Your task to perform on an android device: empty trash in google photos Image 0: 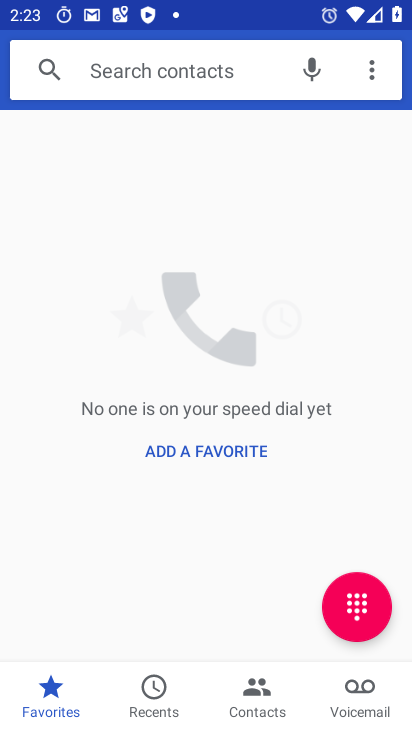
Step 0: press home button
Your task to perform on an android device: empty trash in google photos Image 1: 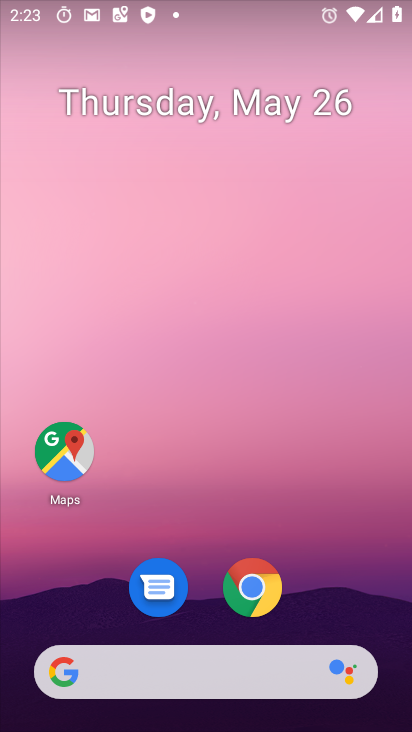
Step 1: drag from (265, 698) to (376, 134)
Your task to perform on an android device: empty trash in google photos Image 2: 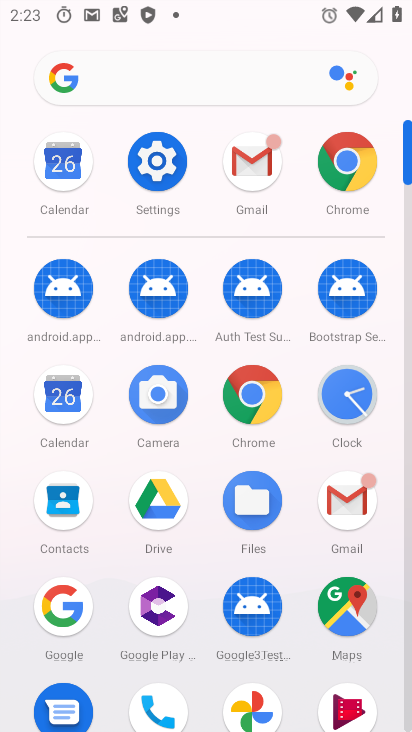
Step 2: drag from (197, 556) to (186, 487)
Your task to perform on an android device: empty trash in google photos Image 3: 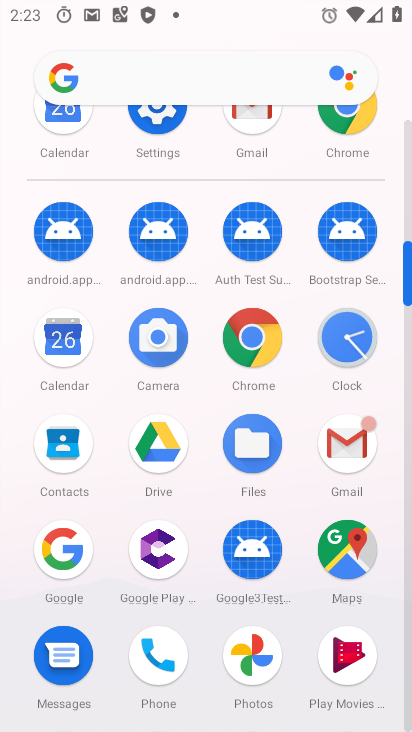
Step 3: click (270, 643)
Your task to perform on an android device: empty trash in google photos Image 4: 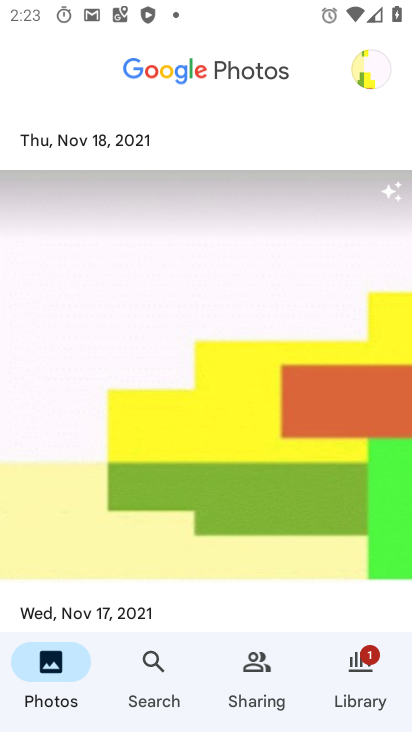
Step 4: click (151, 657)
Your task to perform on an android device: empty trash in google photos Image 5: 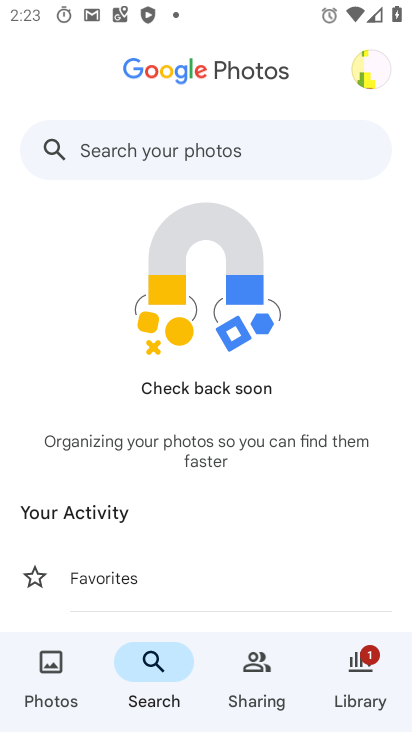
Step 5: click (151, 145)
Your task to perform on an android device: empty trash in google photos Image 6: 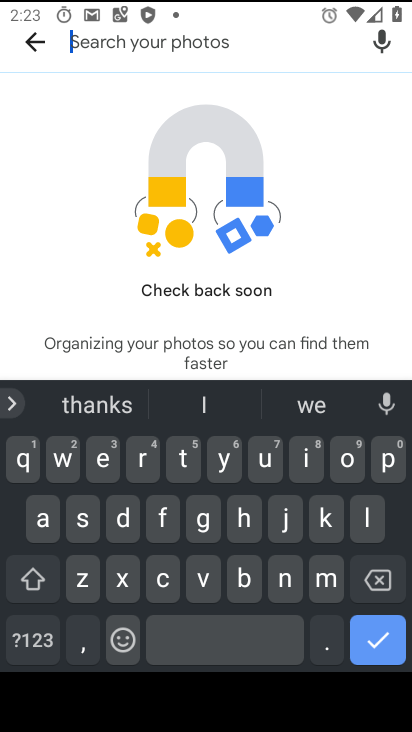
Step 6: click (176, 471)
Your task to perform on an android device: empty trash in google photos Image 7: 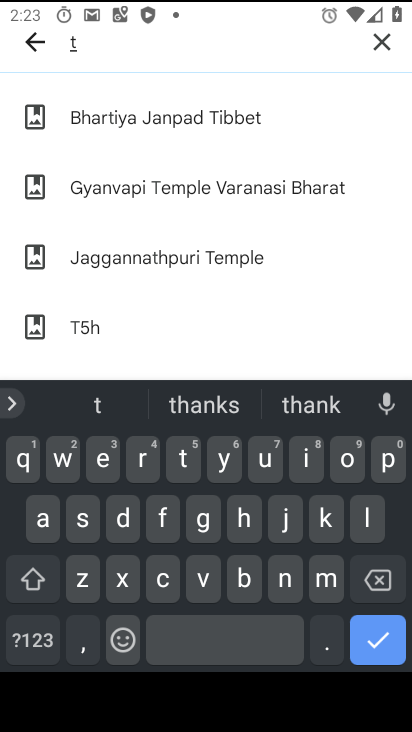
Step 7: click (139, 458)
Your task to perform on an android device: empty trash in google photos Image 8: 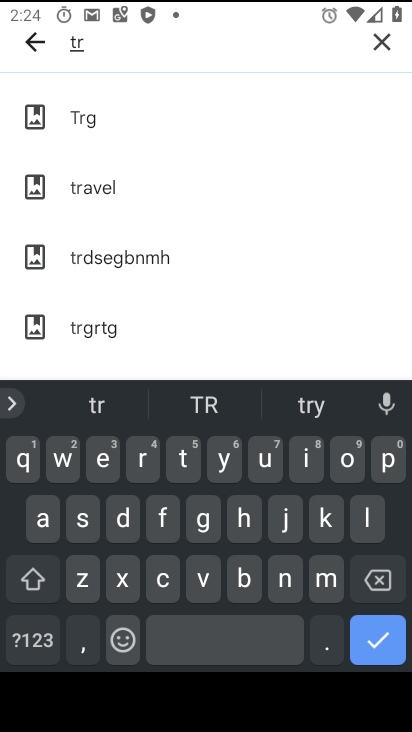
Step 8: click (35, 526)
Your task to perform on an android device: empty trash in google photos Image 9: 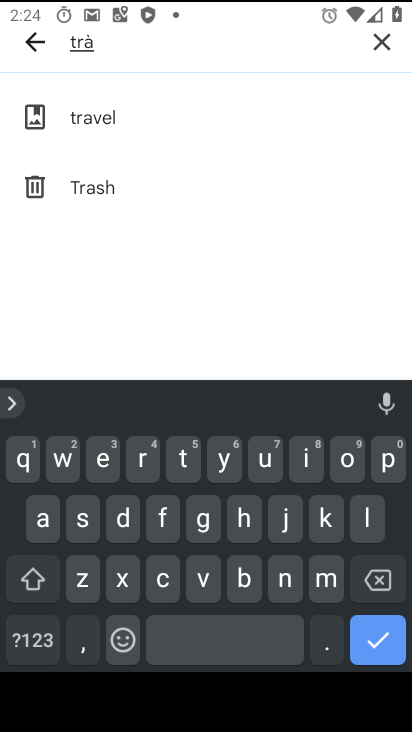
Step 9: click (109, 182)
Your task to perform on an android device: empty trash in google photos Image 10: 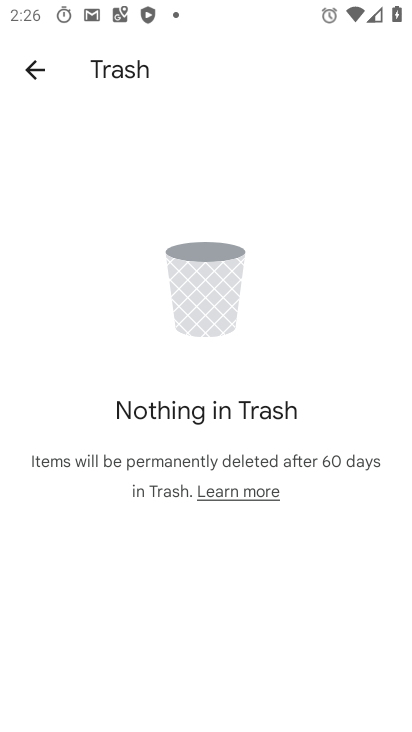
Step 10: task complete